Your task to perform on an android device: open app "Google Pay: Save, Pay, Manage" Image 0: 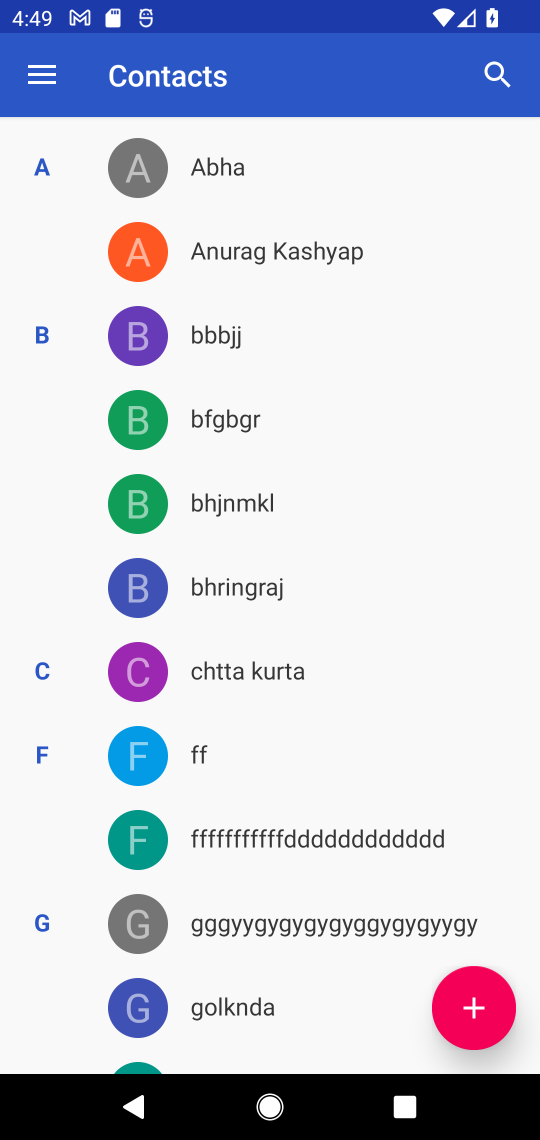
Step 0: press home button
Your task to perform on an android device: open app "Google Pay: Save, Pay, Manage" Image 1: 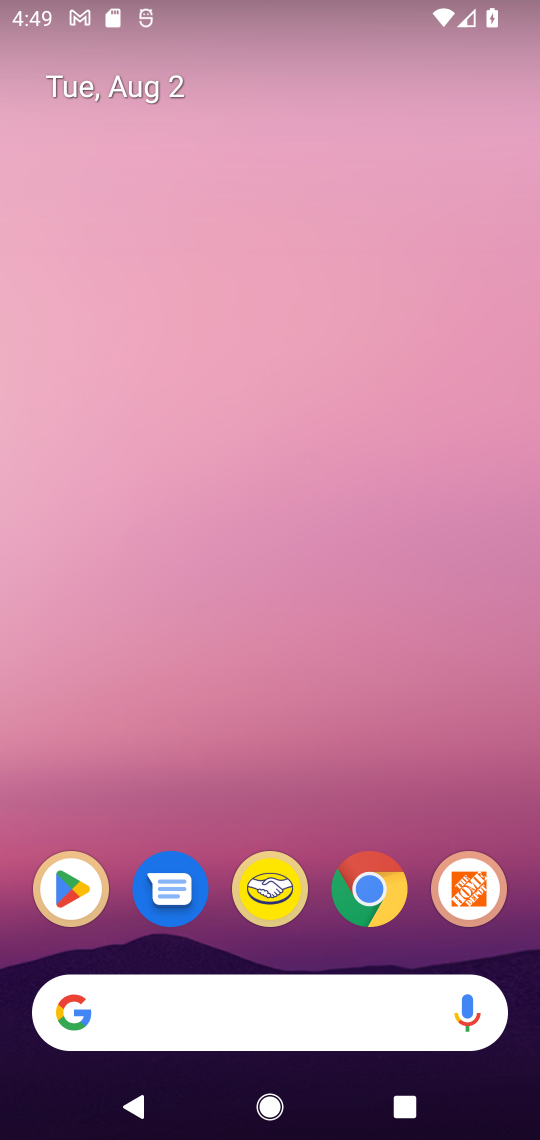
Step 1: drag from (397, 776) to (377, 65)
Your task to perform on an android device: open app "Google Pay: Save, Pay, Manage" Image 2: 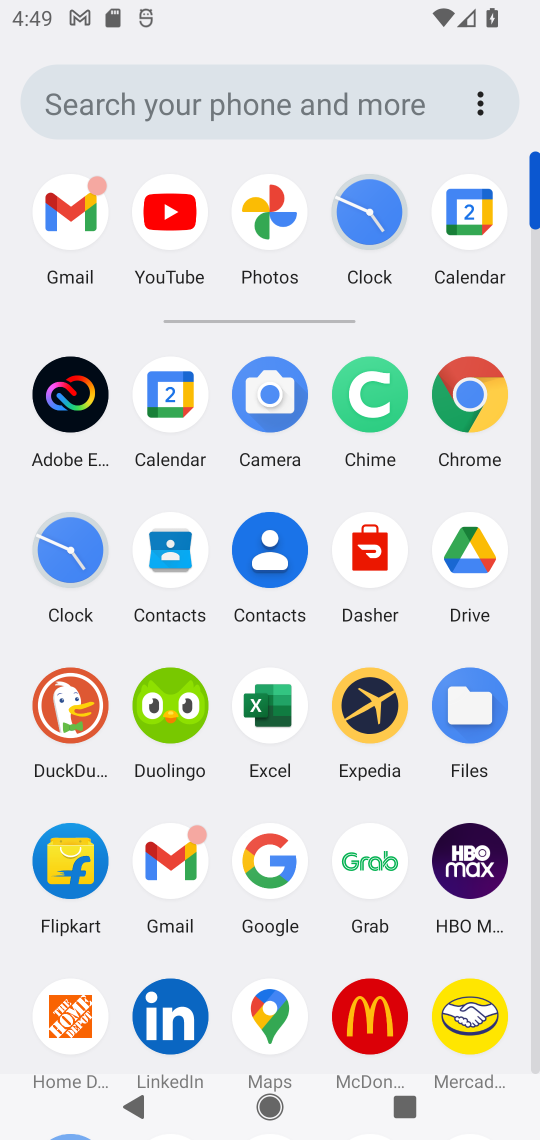
Step 2: drag from (503, 954) to (535, 350)
Your task to perform on an android device: open app "Google Pay: Save, Pay, Manage" Image 3: 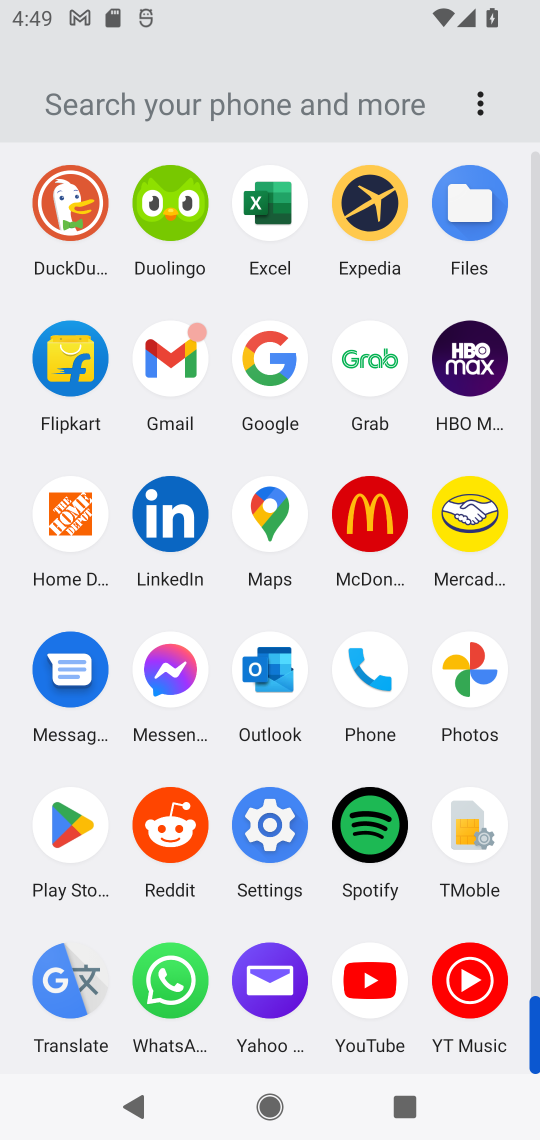
Step 3: click (80, 825)
Your task to perform on an android device: open app "Google Pay: Save, Pay, Manage" Image 4: 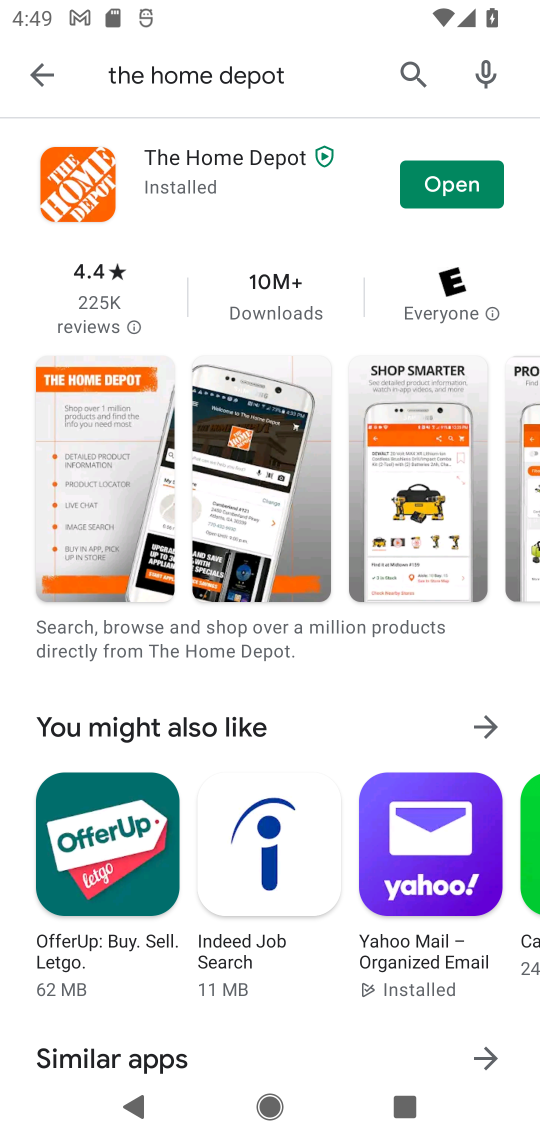
Step 4: click (410, 74)
Your task to perform on an android device: open app "Google Pay: Save, Pay, Manage" Image 5: 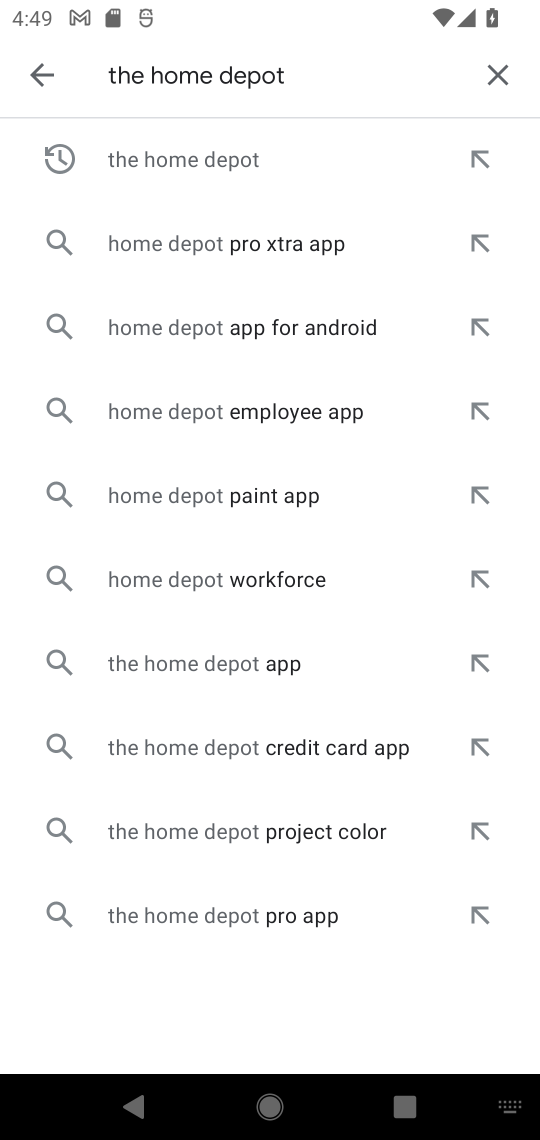
Step 5: click (492, 82)
Your task to perform on an android device: open app "Google Pay: Save, Pay, Manage" Image 6: 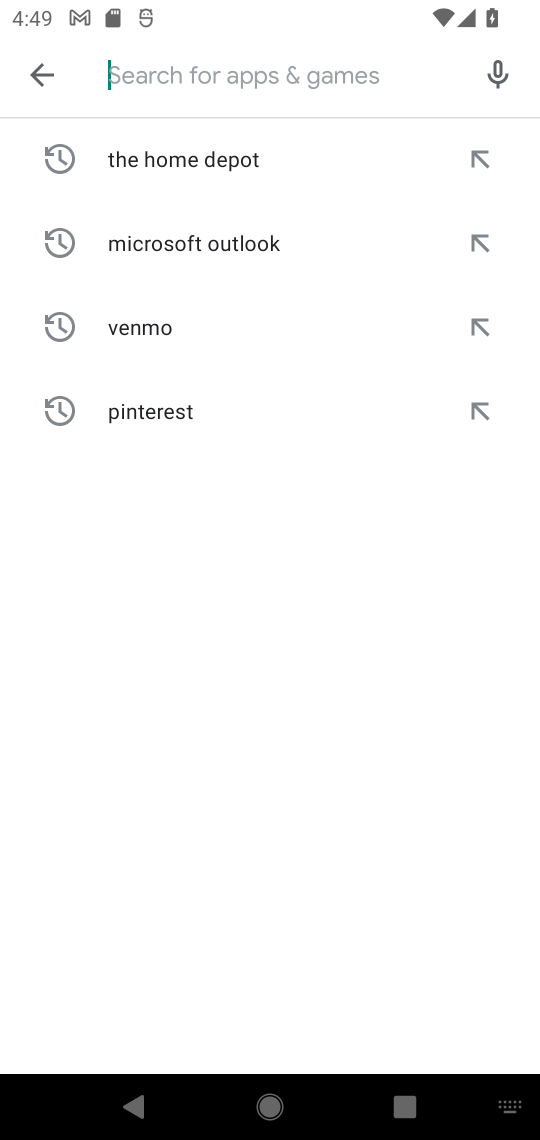
Step 6: type "Google Pay: Save, Pay, Manage"
Your task to perform on an android device: open app "Google Pay: Save, Pay, Manage" Image 7: 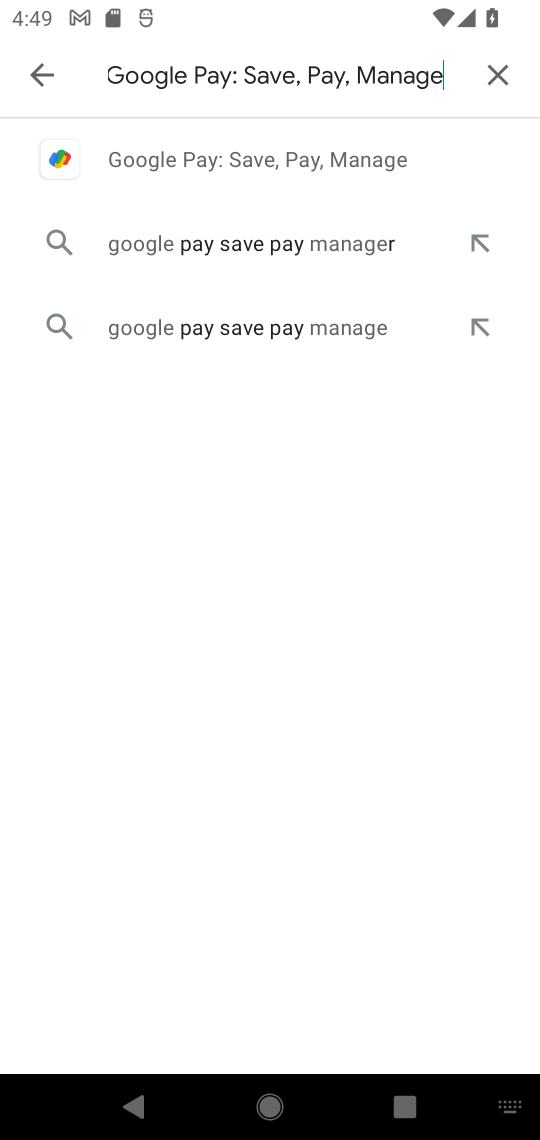
Step 7: click (325, 159)
Your task to perform on an android device: open app "Google Pay: Save, Pay, Manage" Image 8: 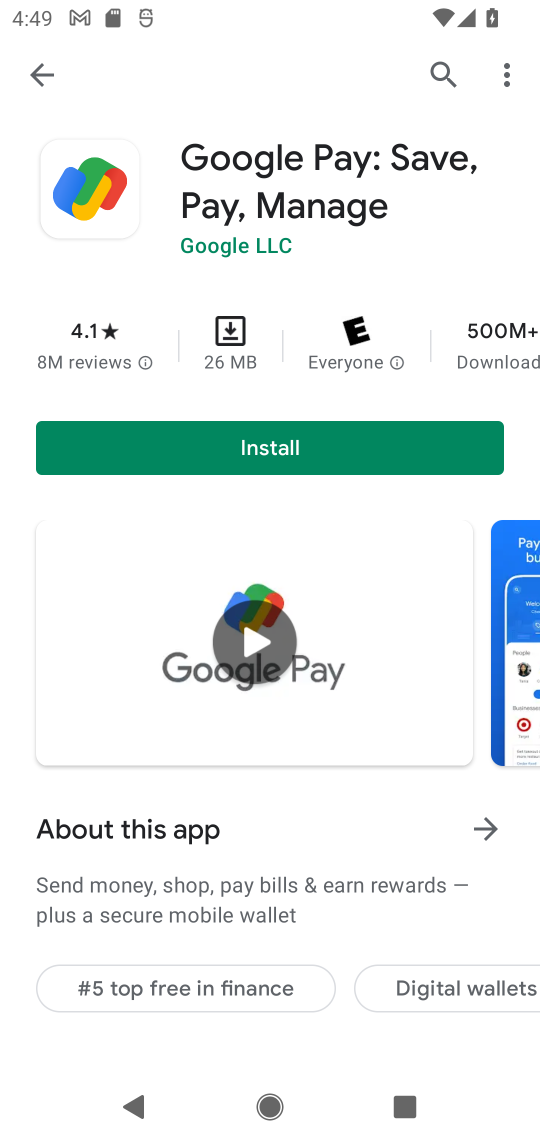
Step 8: task complete